Your task to perform on an android device: Go to battery settings Image 0: 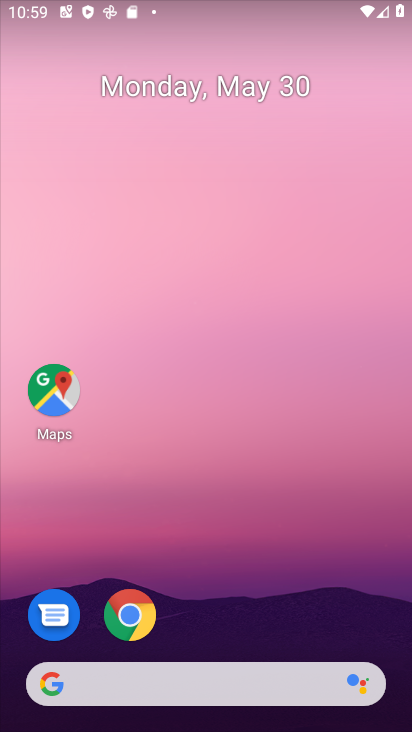
Step 0: drag from (249, 332) to (216, 32)
Your task to perform on an android device: Go to battery settings Image 1: 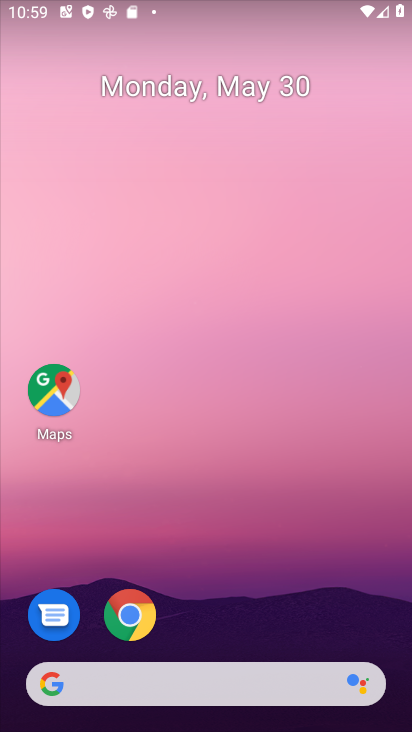
Step 1: drag from (279, 546) to (186, 26)
Your task to perform on an android device: Go to battery settings Image 2: 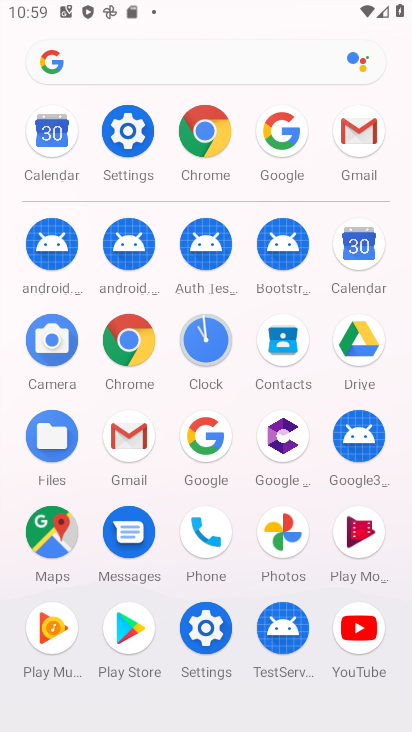
Step 2: click (111, 245)
Your task to perform on an android device: Go to battery settings Image 3: 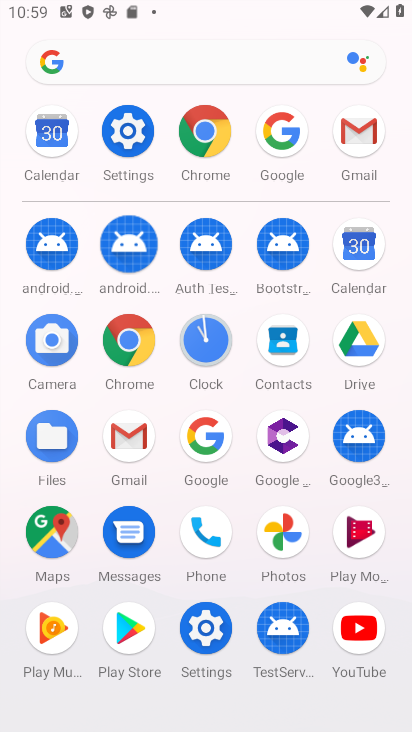
Step 3: click (132, 133)
Your task to perform on an android device: Go to battery settings Image 4: 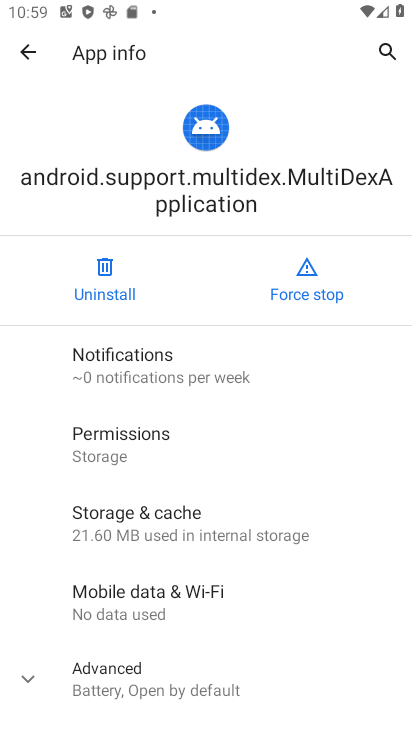
Step 4: press back button
Your task to perform on an android device: Go to battery settings Image 5: 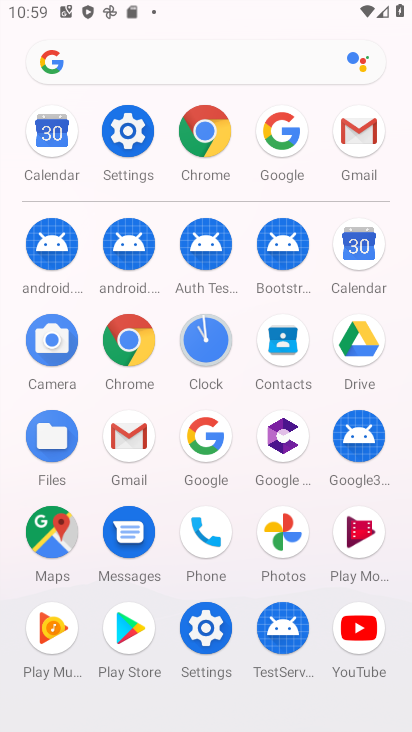
Step 5: click (130, 142)
Your task to perform on an android device: Go to battery settings Image 6: 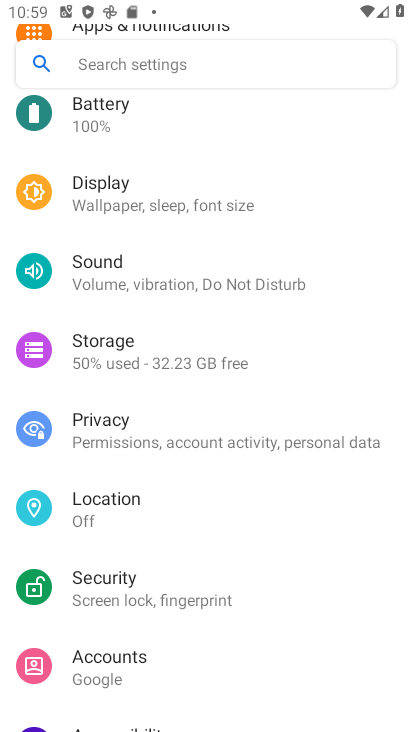
Step 6: click (194, 125)
Your task to perform on an android device: Go to battery settings Image 7: 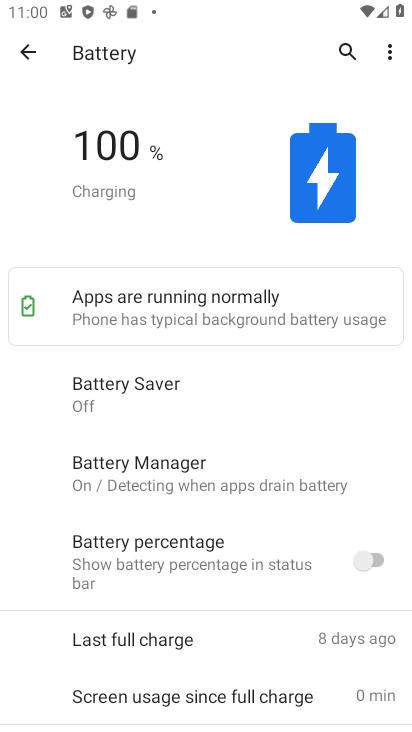
Step 7: task complete